Your task to perform on an android device: Open network settings Image 0: 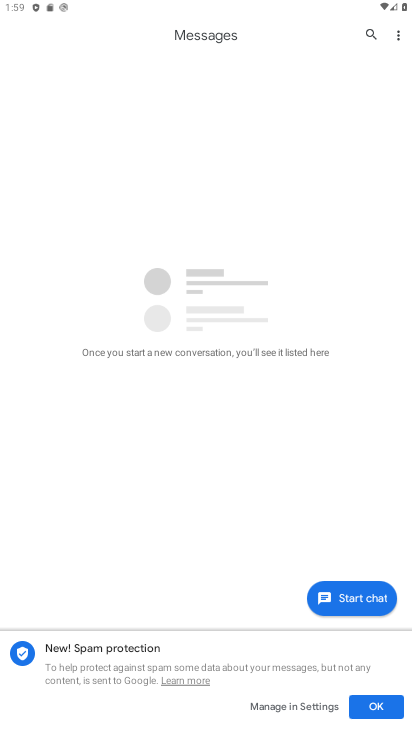
Step 0: press home button
Your task to perform on an android device: Open network settings Image 1: 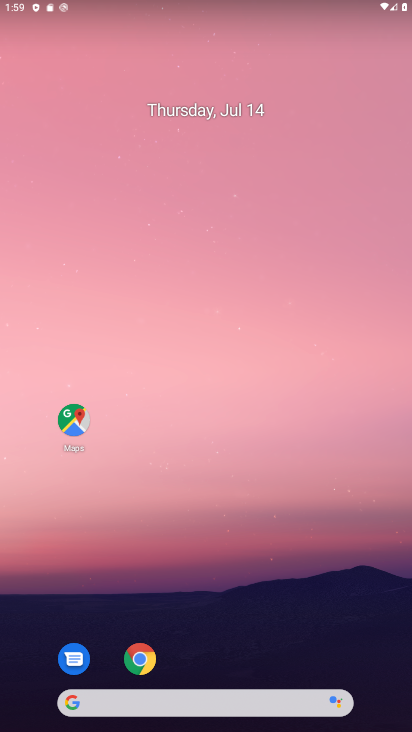
Step 1: drag from (262, 708) to (269, 141)
Your task to perform on an android device: Open network settings Image 2: 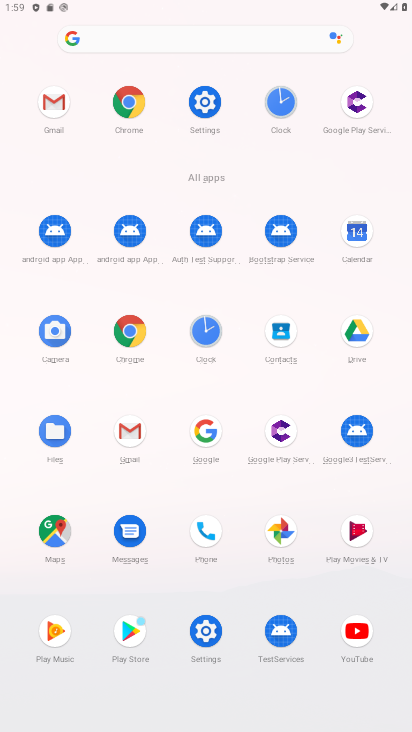
Step 2: drag from (195, 106) to (260, 614)
Your task to perform on an android device: Open network settings Image 3: 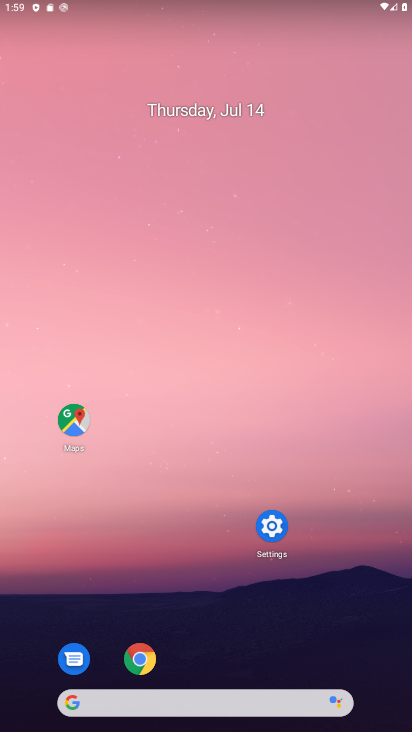
Step 3: click (269, 527)
Your task to perform on an android device: Open network settings Image 4: 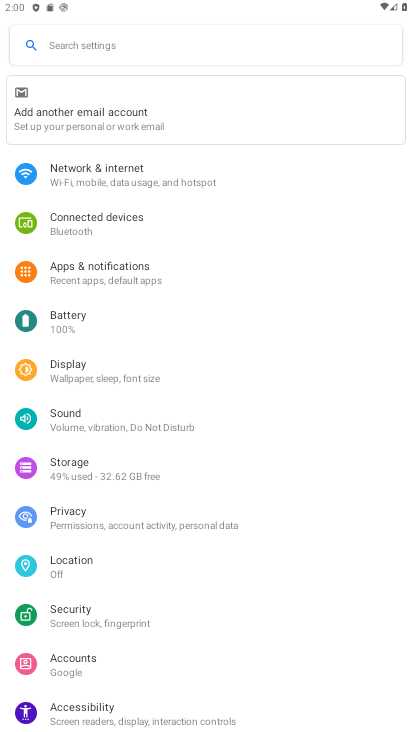
Step 4: click (124, 189)
Your task to perform on an android device: Open network settings Image 5: 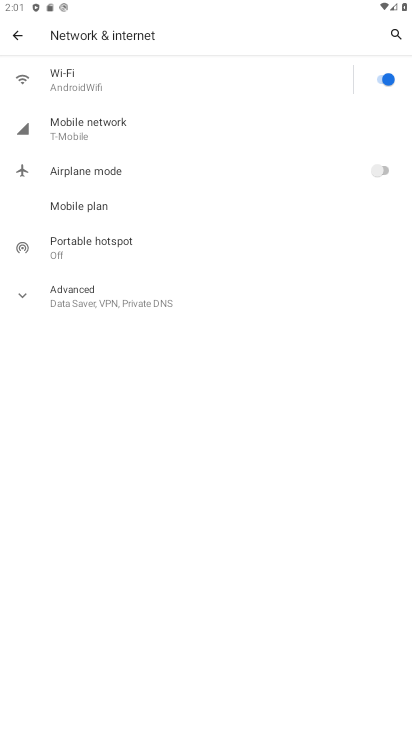
Step 5: task complete